Your task to perform on an android device: turn off location Image 0: 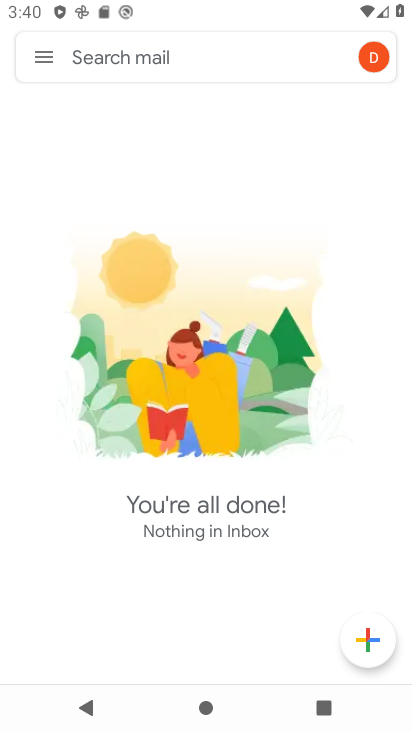
Step 0: press home button
Your task to perform on an android device: turn off location Image 1: 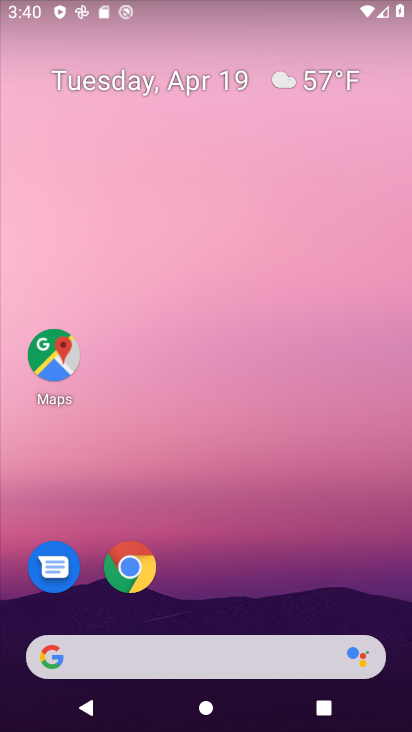
Step 1: drag from (327, 562) to (304, 159)
Your task to perform on an android device: turn off location Image 2: 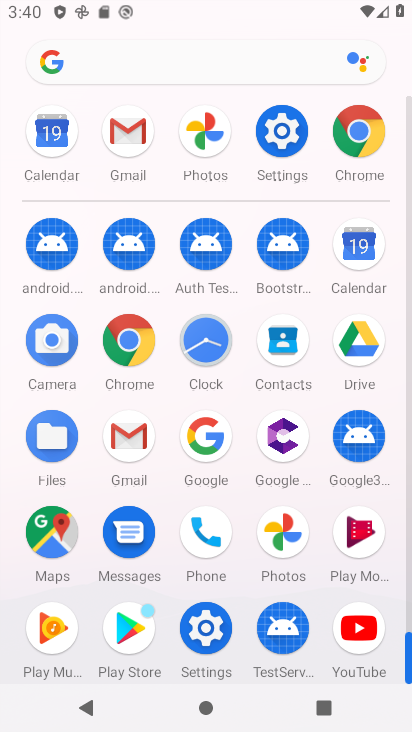
Step 2: click (285, 129)
Your task to perform on an android device: turn off location Image 3: 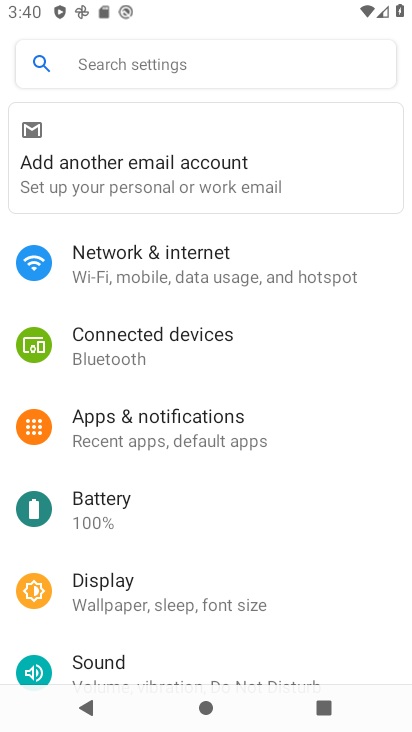
Step 3: drag from (344, 565) to (341, 333)
Your task to perform on an android device: turn off location Image 4: 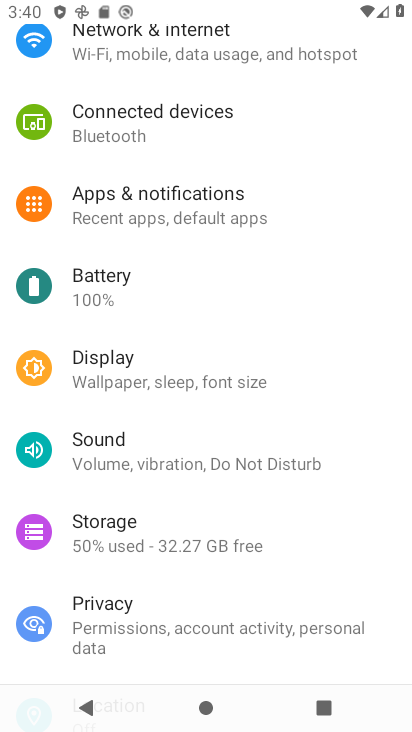
Step 4: drag from (364, 504) to (356, 324)
Your task to perform on an android device: turn off location Image 5: 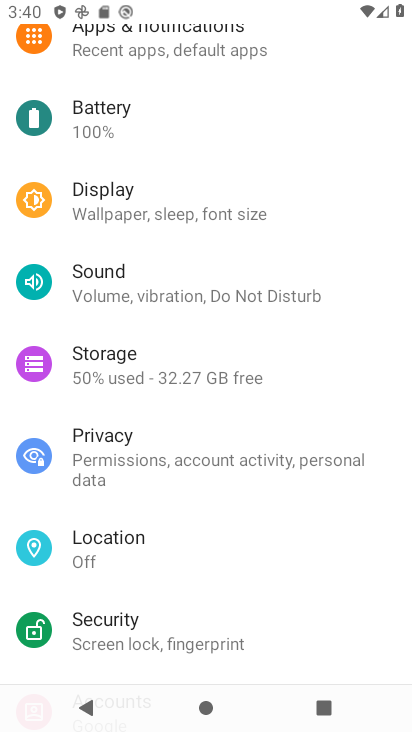
Step 5: click (108, 537)
Your task to perform on an android device: turn off location Image 6: 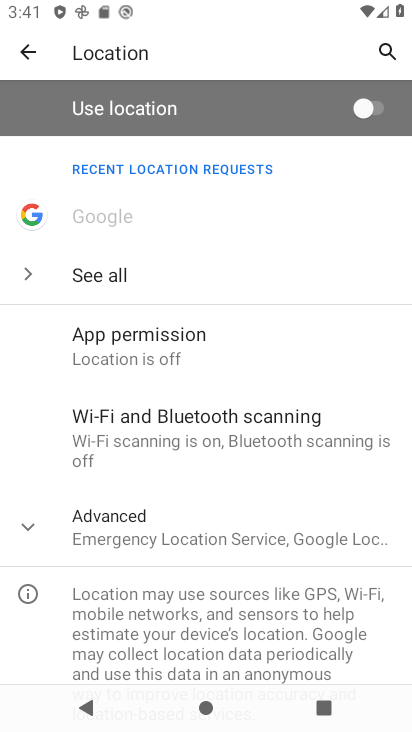
Step 6: task complete